Your task to perform on an android device: turn on data saver in the chrome app Image 0: 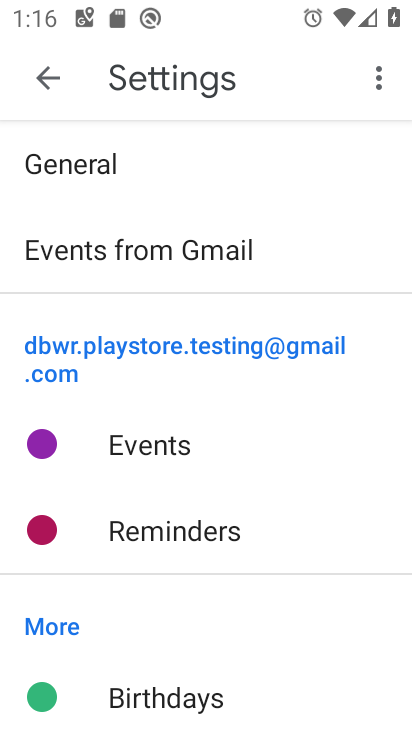
Step 0: press home button
Your task to perform on an android device: turn on data saver in the chrome app Image 1: 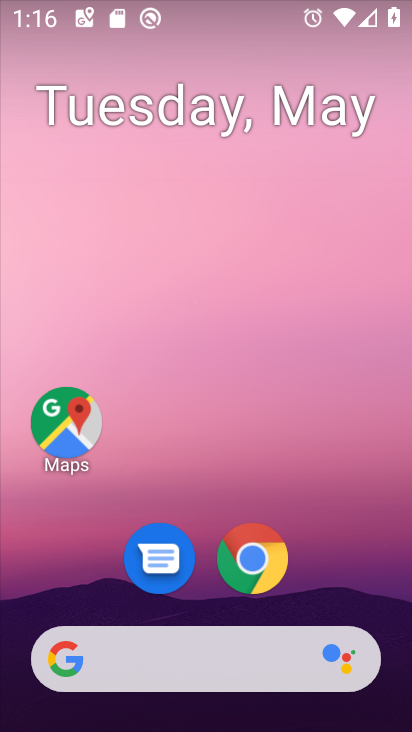
Step 1: click (277, 555)
Your task to perform on an android device: turn on data saver in the chrome app Image 2: 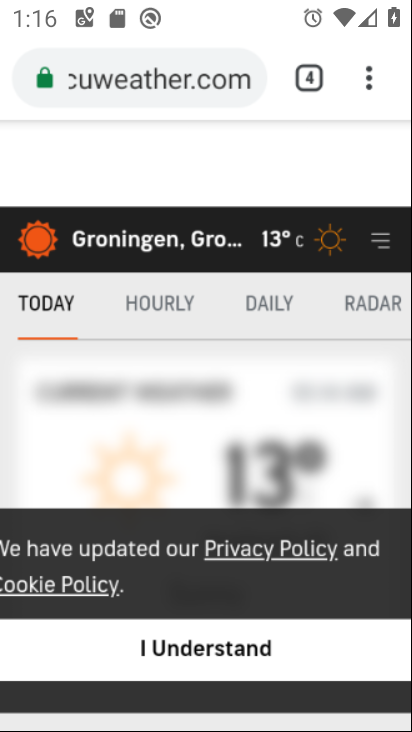
Step 2: click (373, 69)
Your task to perform on an android device: turn on data saver in the chrome app Image 3: 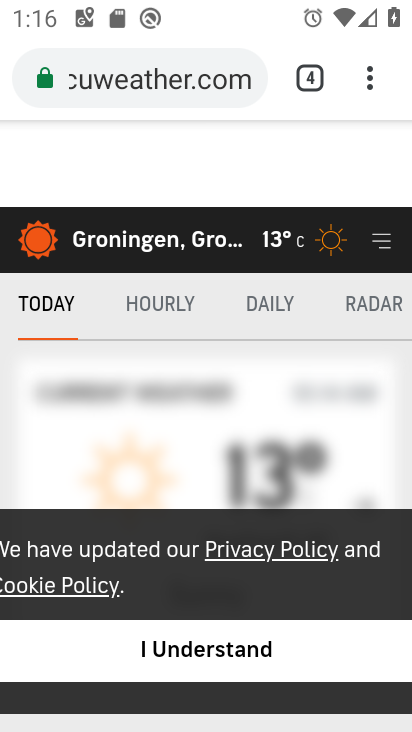
Step 3: click (373, 69)
Your task to perform on an android device: turn on data saver in the chrome app Image 4: 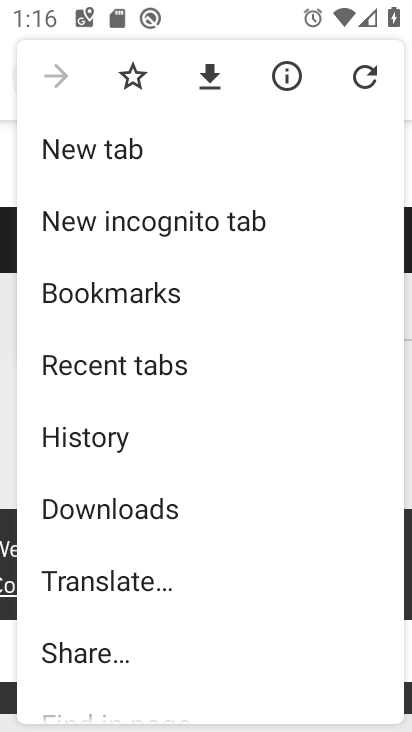
Step 4: drag from (170, 632) to (151, 252)
Your task to perform on an android device: turn on data saver in the chrome app Image 5: 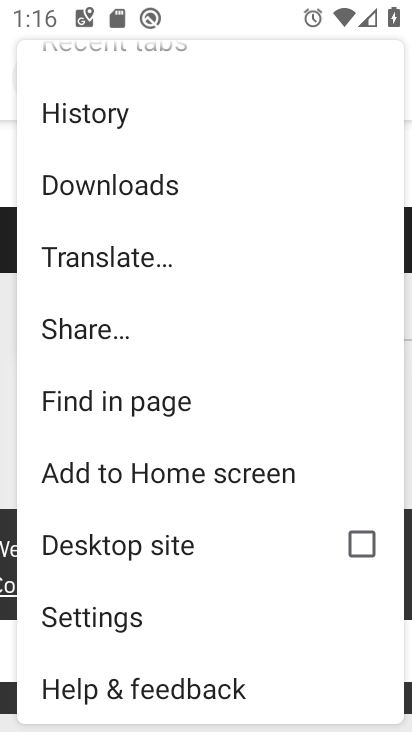
Step 5: click (143, 615)
Your task to perform on an android device: turn on data saver in the chrome app Image 6: 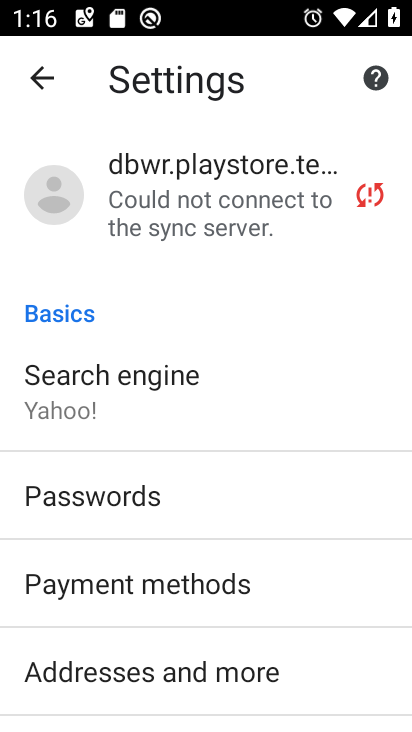
Step 6: drag from (172, 632) to (152, 181)
Your task to perform on an android device: turn on data saver in the chrome app Image 7: 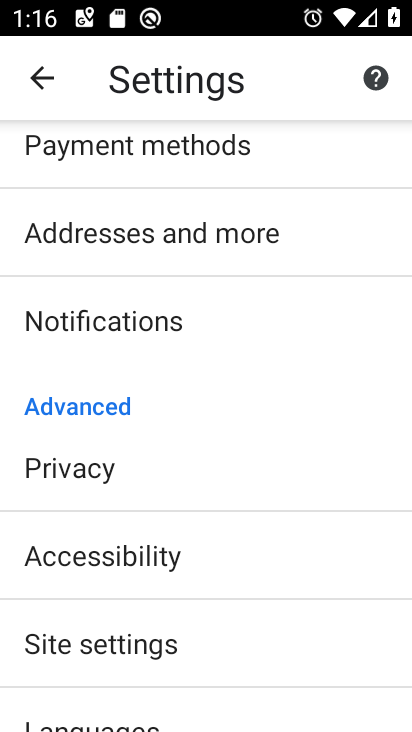
Step 7: drag from (251, 695) to (235, 416)
Your task to perform on an android device: turn on data saver in the chrome app Image 8: 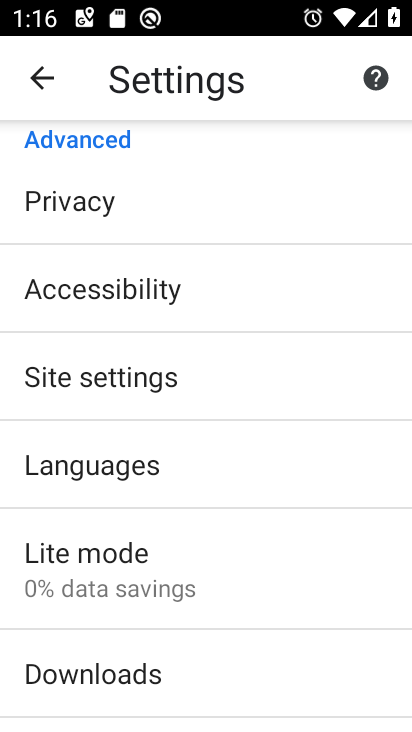
Step 8: click (212, 568)
Your task to perform on an android device: turn on data saver in the chrome app Image 9: 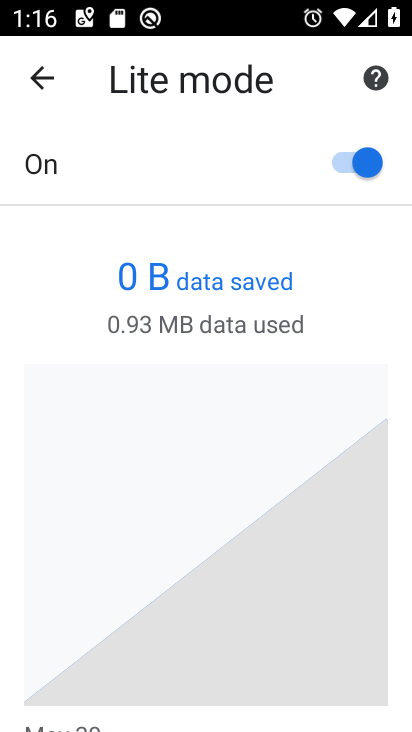
Step 9: task complete